Your task to perform on an android device: toggle pop-ups in chrome Image 0: 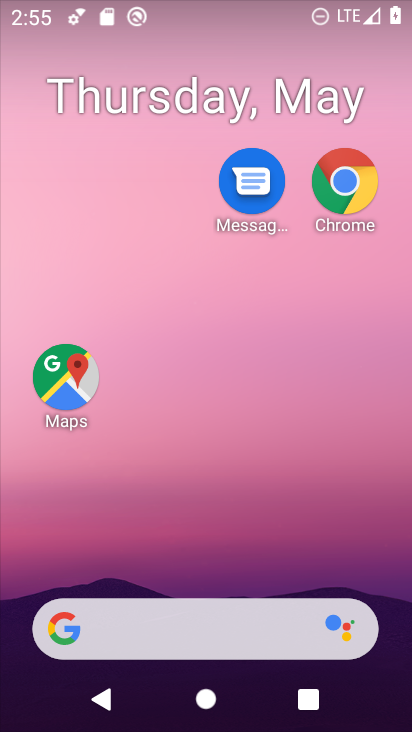
Step 0: drag from (164, 625) to (198, 81)
Your task to perform on an android device: toggle pop-ups in chrome Image 1: 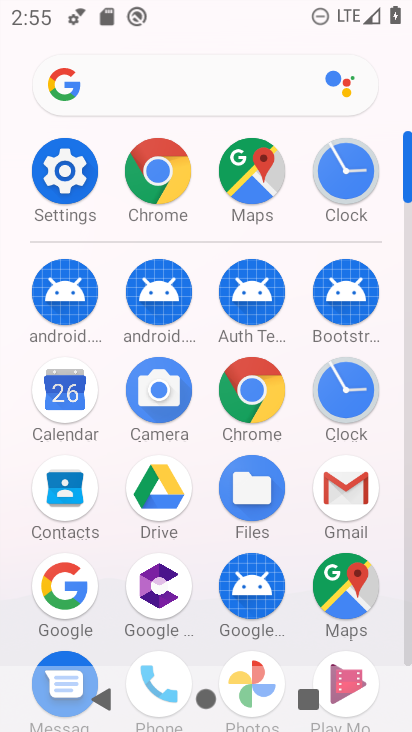
Step 1: click (260, 409)
Your task to perform on an android device: toggle pop-ups in chrome Image 2: 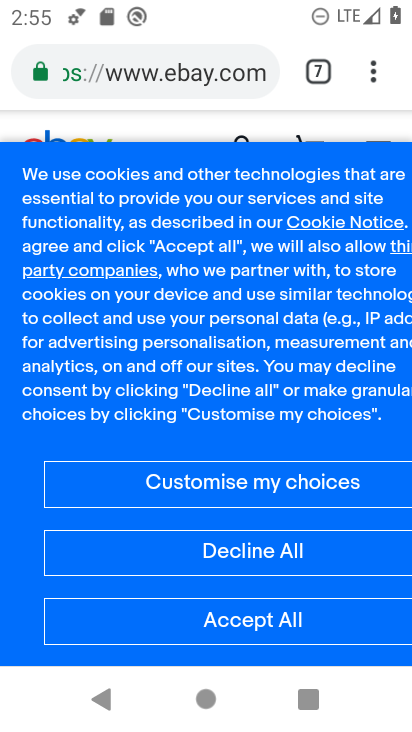
Step 2: drag from (366, 69) to (137, 511)
Your task to perform on an android device: toggle pop-ups in chrome Image 3: 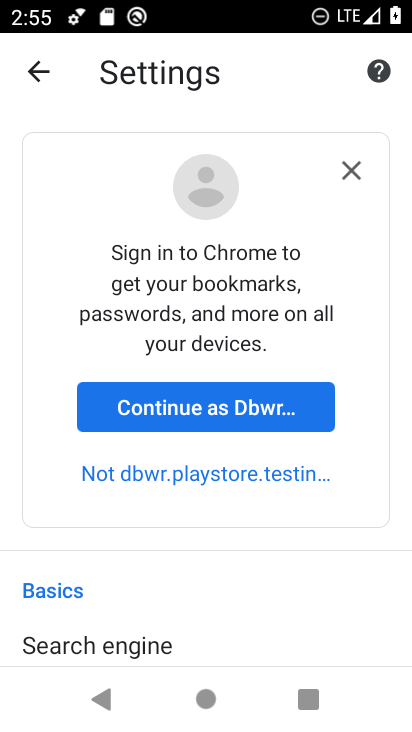
Step 3: drag from (206, 595) to (276, 52)
Your task to perform on an android device: toggle pop-ups in chrome Image 4: 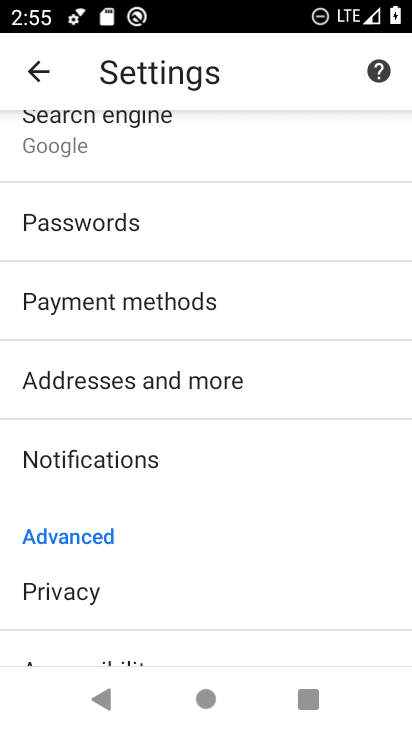
Step 4: drag from (213, 568) to (267, 133)
Your task to perform on an android device: toggle pop-ups in chrome Image 5: 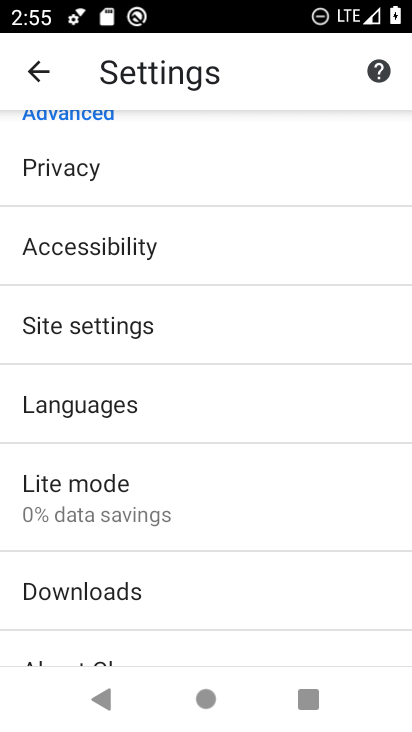
Step 5: click (145, 314)
Your task to perform on an android device: toggle pop-ups in chrome Image 6: 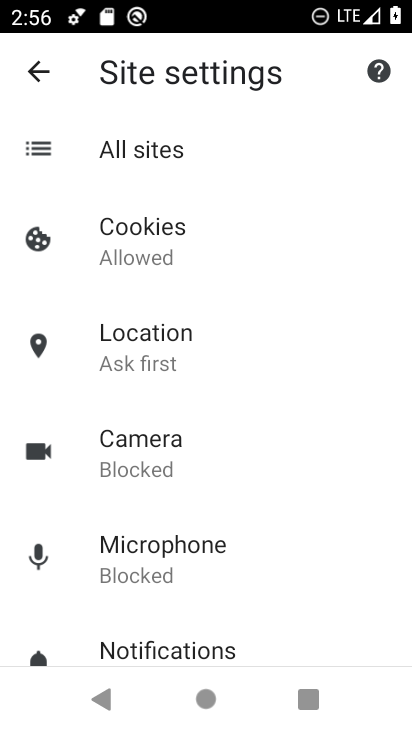
Step 6: drag from (178, 620) to (189, 249)
Your task to perform on an android device: toggle pop-ups in chrome Image 7: 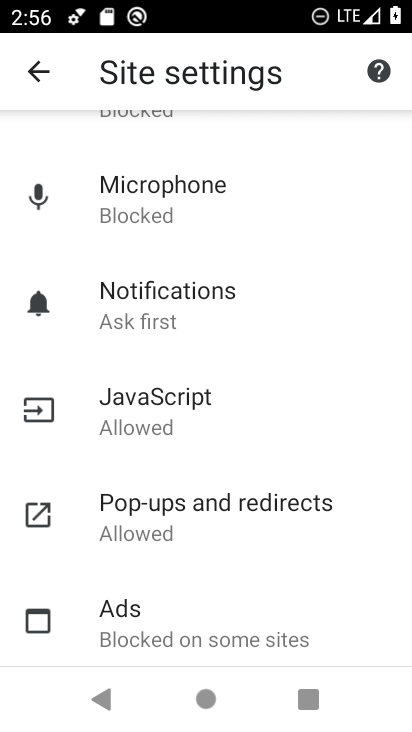
Step 7: click (161, 522)
Your task to perform on an android device: toggle pop-ups in chrome Image 8: 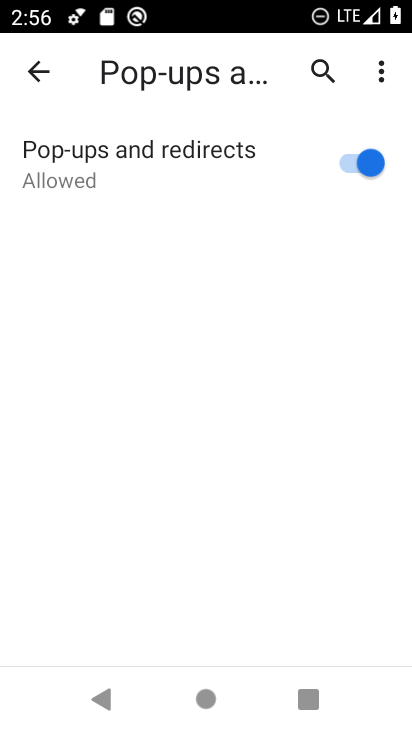
Step 8: click (359, 170)
Your task to perform on an android device: toggle pop-ups in chrome Image 9: 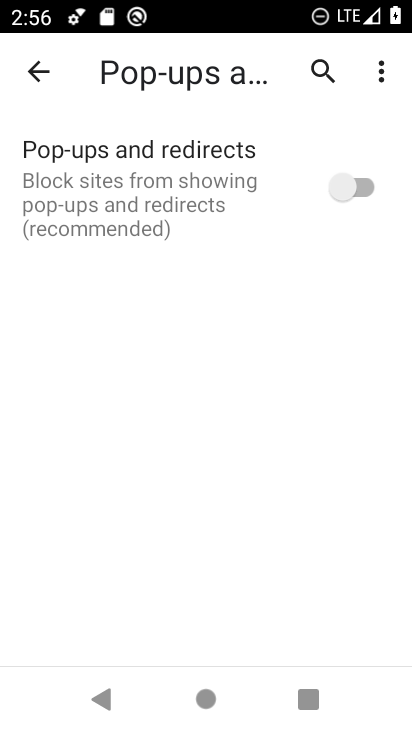
Step 9: task complete